Your task to perform on an android device: see sites visited before in the chrome app Image 0: 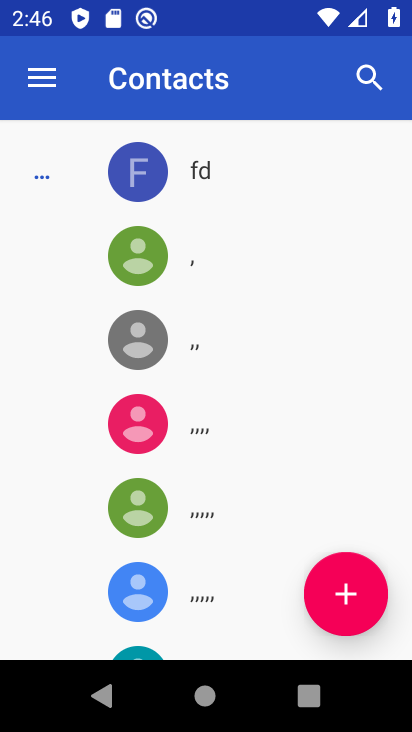
Step 0: press home button
Your task to perform on an android device: see sites visited before in the chrome app Image 1: 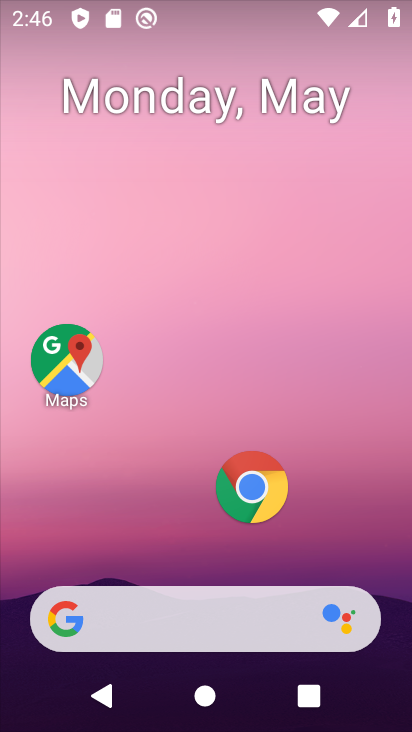
Step 1: click (246, 485)
Your task to perform on an android device: see sites visited before in the chrome app Image 2: 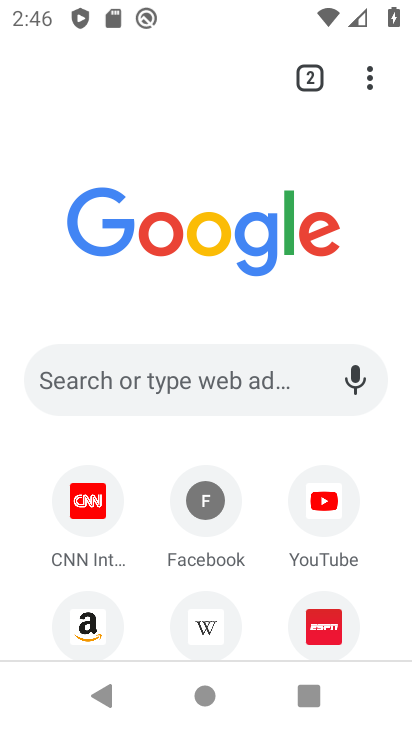
Step 2: click (363, 75)
Your task to perform on an android device: see sites visited before in the chrome app Image 3: 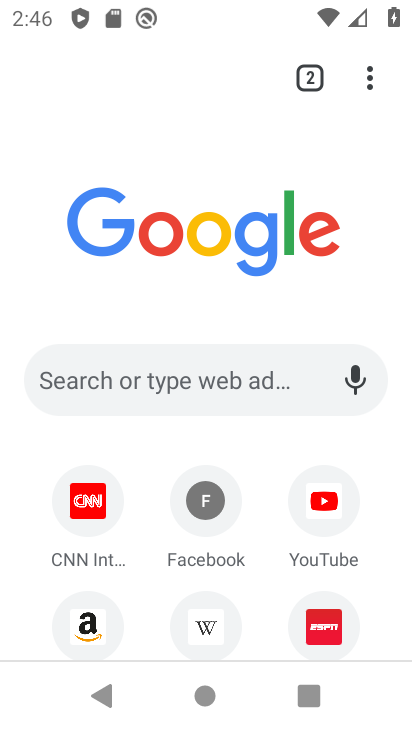
Step 3: click (372, 80)
Your task to perform on an android device: see sites visited before in the chrome app Image 4: 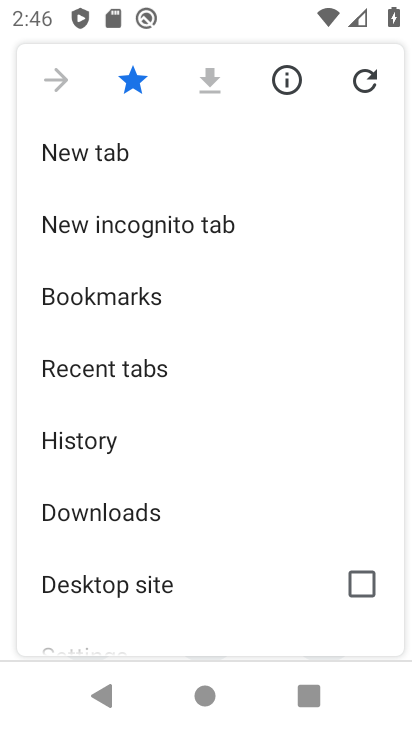
Step 4: click (91, 430)
Your task to perform on an android device: see sites visited before in the chrome app Image 5: 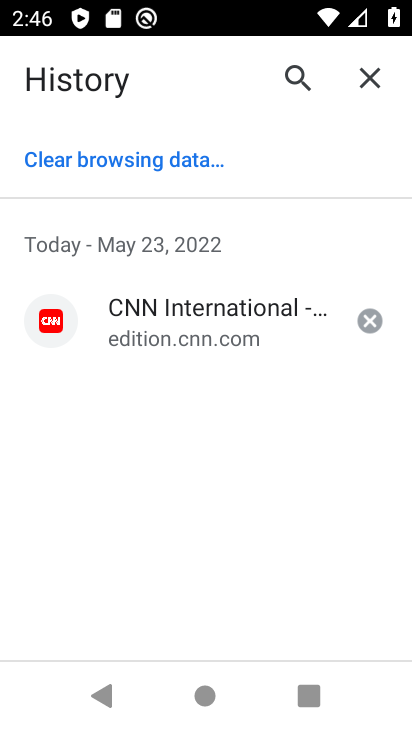
Step 5: task complete